Your task to perform on an android device: install app "Spotify: Music and Podcasts" Image 0: 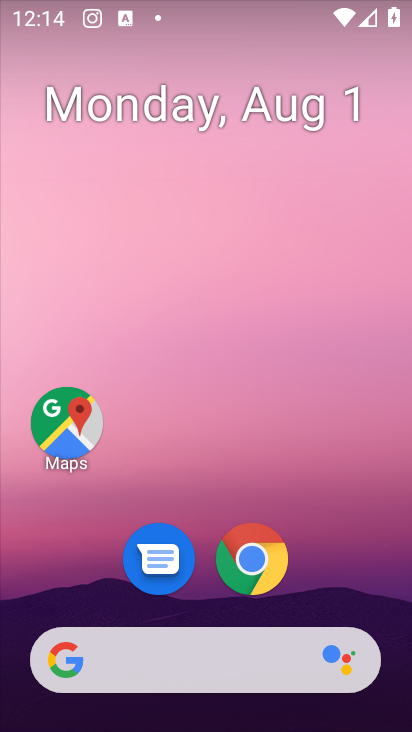
Step 0: drag from (63, 596) to (198, 70)
Your task to perform on an android device: install app "Spotify: Music and Podcasts" Image 1: 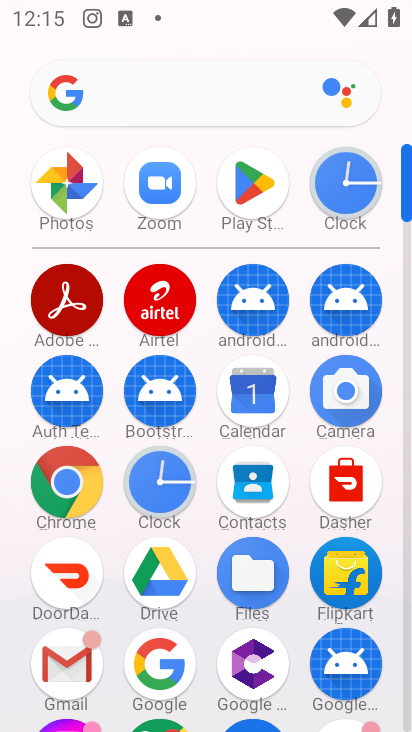
Step 1: click (248, 192)
Your task to perform on an android device: install app "Spotify: Music and Podcasts" Image 2: 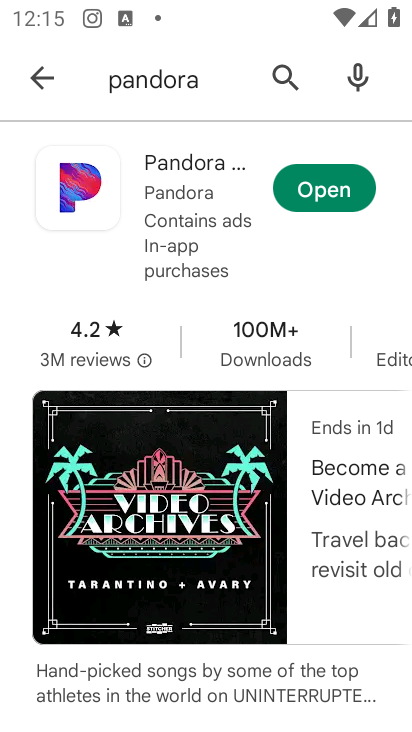
Step 2: click (273, 72)
Your task to perform on an android device: install app "Spotify: Music and Podcasts" Image 3: 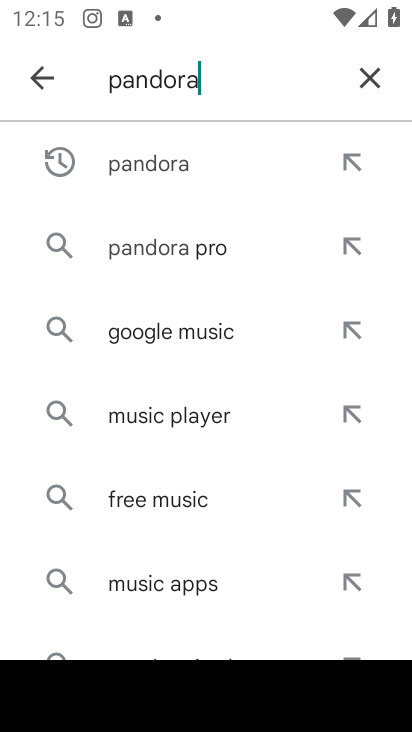
Step 3: click (373, 78)
Your task to perform on an android device: install app "Spotify: Music and Podcasts" Image 4: 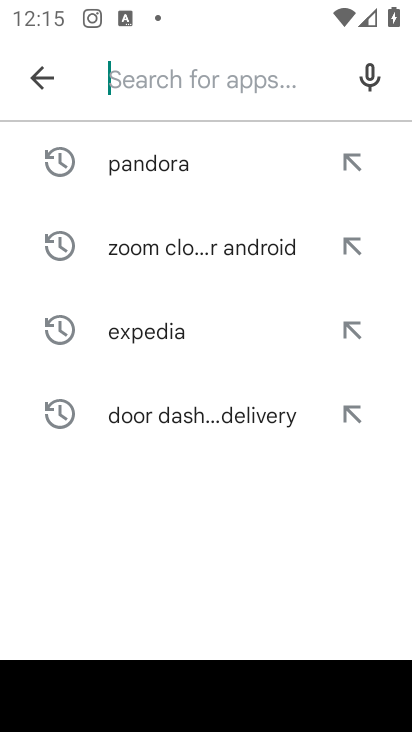
Step 4: click (207, 74)
Your task to perform on an android device: install app "Spotify: Music and Podcasts" Image 5: 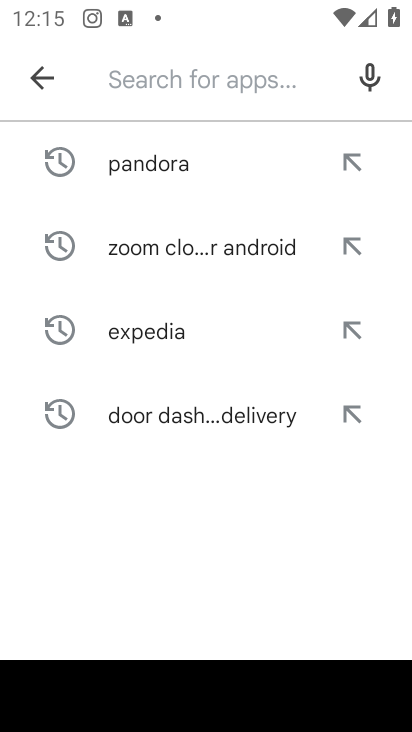
Step 5: type "spotify"
Your task to perform on an android device: install app "Spotify: Music and Podcasts" Image 6: 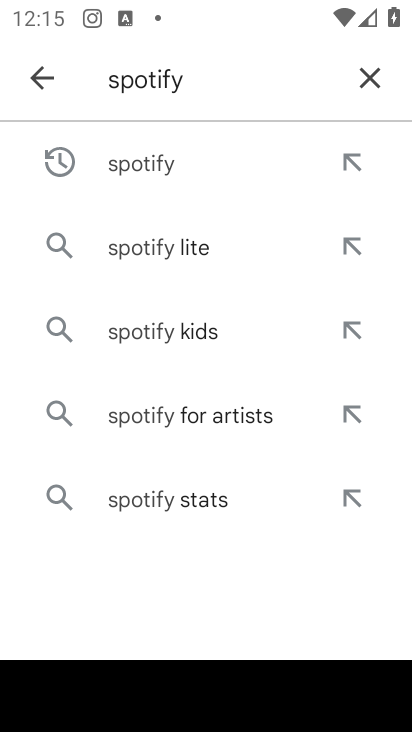
Step 6: click (137, 150)
Your task to perform on an android device: install app "Spotify: Music and Podcasts" Image 7: 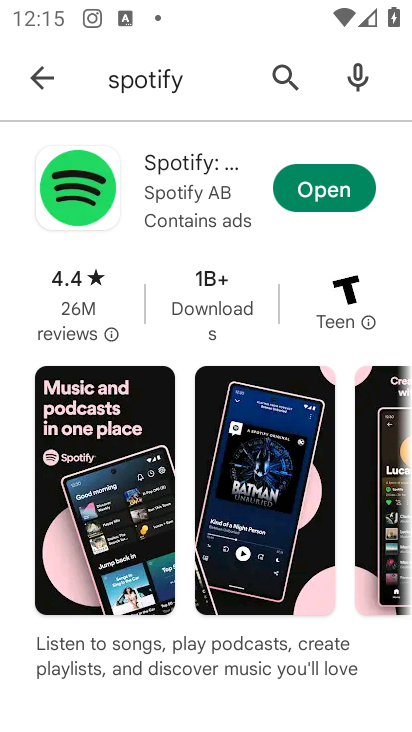
Step 7: click (326, 192)
Your task to perform on an android device: install app "Spotify: Music and Podcasts" Image 8: 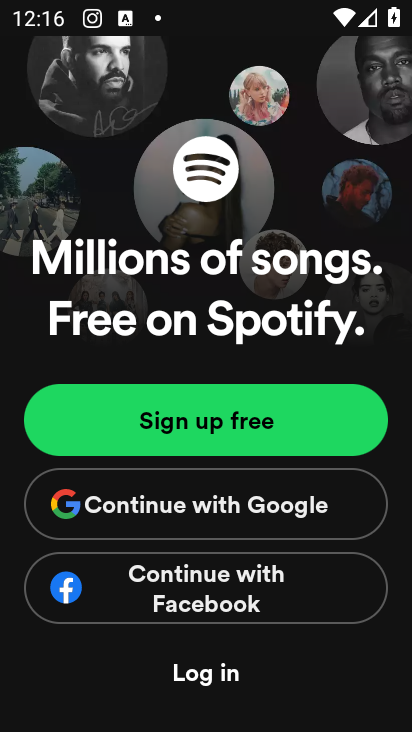
Step 8: task complete